Your task to perform on an android device: Go to Yahoo.com Image 0: 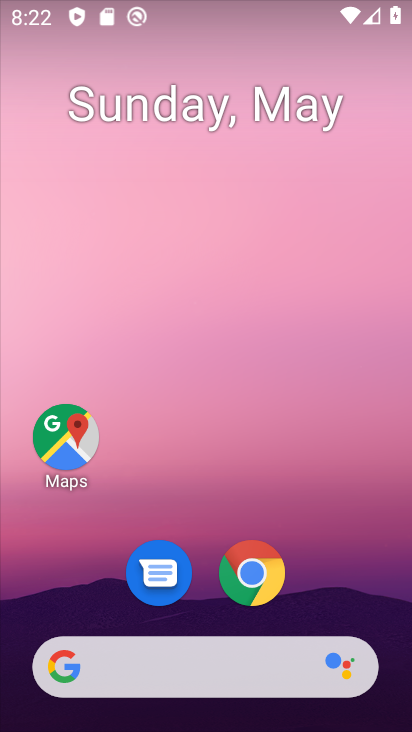
Step 0: drag from (364, 606) to (350, 190)
Your task to perform on an android device: Go to Yahoo.com Image 1: 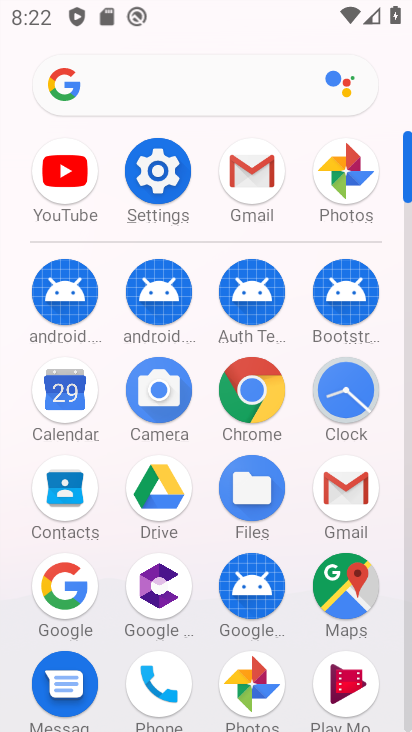
Step 1: click (261, 390)
Your task to perform on an android device: Go to Yahoo.com Image 2: 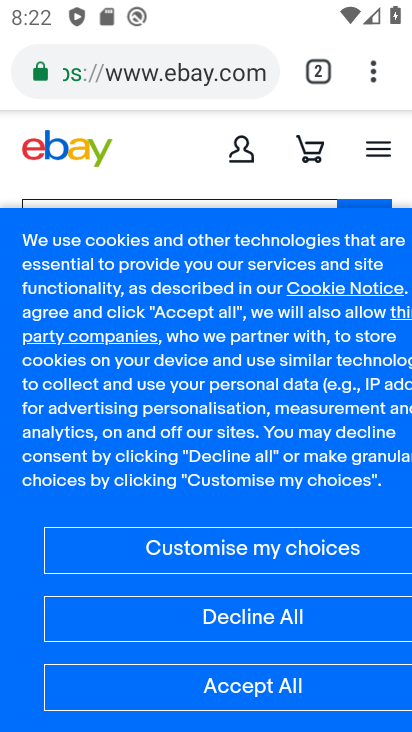
Step 2: click (328, 80)
Your task to perform on an android device: Go to Yahoo.com Image 3: 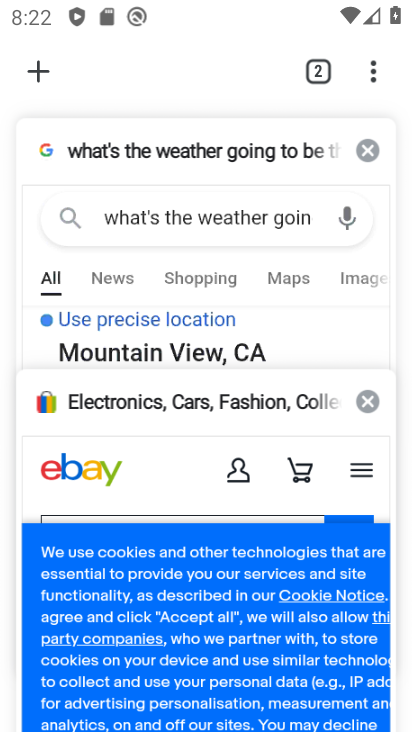
Step 3: click (49, 68)
Your task to perform on an android device: Go to Yahoo.com Image 4: 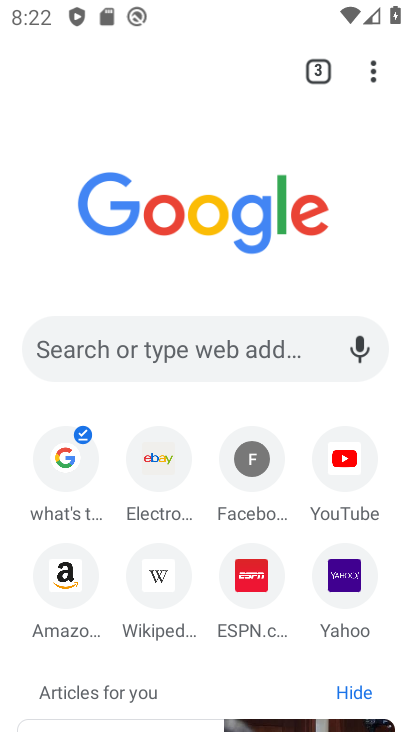
Step 4: click (348, 599)
Your task to perform on an android device: Go to Yahoo.com Image 5: 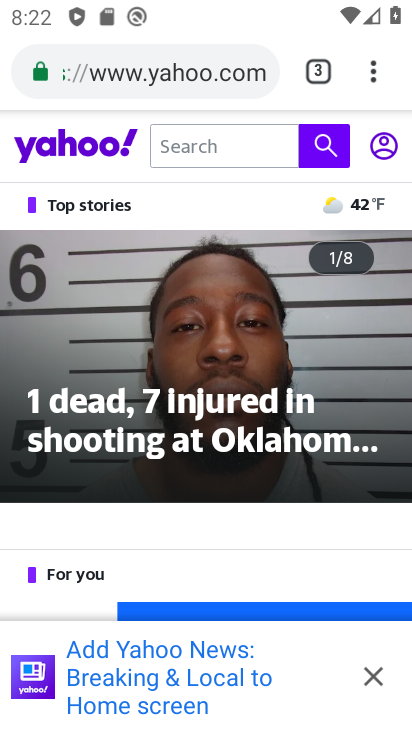
Step 5: task complete